Your task to perform on an android device: Go to wifi settings Image 0: 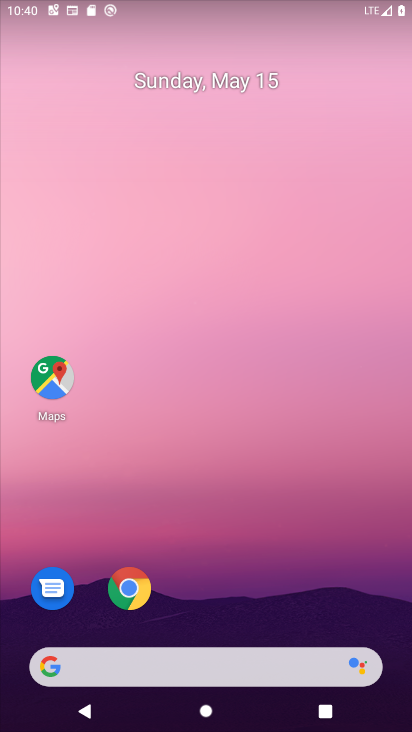
Step 0: drag from (301, 578) to (265, 45)
Your task to perform on an android device: Go to wifi settings Image 1: 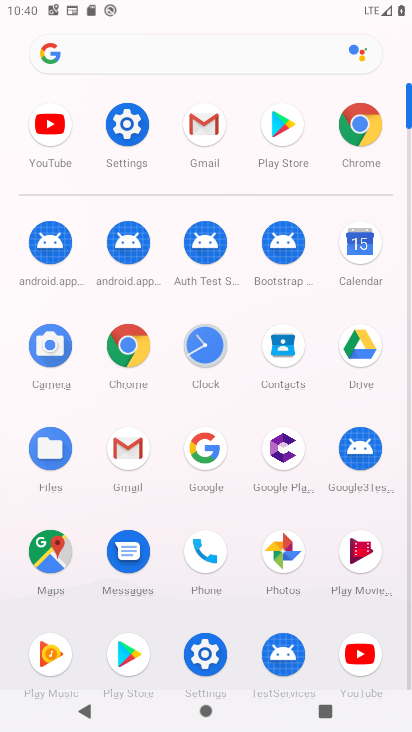
Step 1: click (119, 127)
Your task to perform on an android device: Go to wifi settings Image 2: 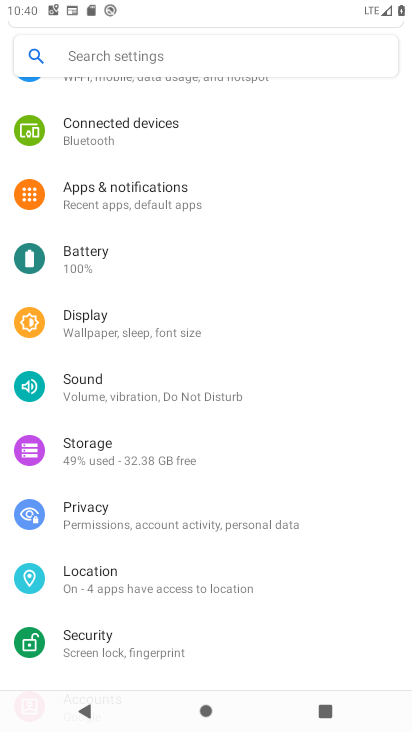
Step 2: drag from (218, 181) to (220, 588)
Your task to perform on an android device: Go to wifi settings Image 3: 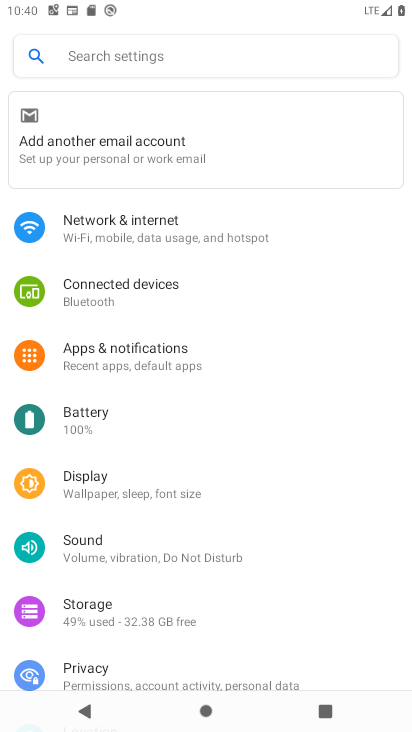
Step 3: click (178, 245)
Your task to perform on an android device: Go to wifi settings Image 4: 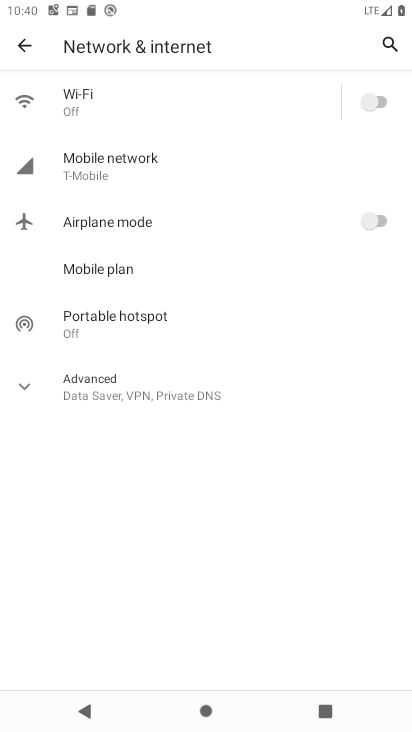
Step 4: click (166, 101)
Your task to perform on an android device: Go to wifi settings Image 5: 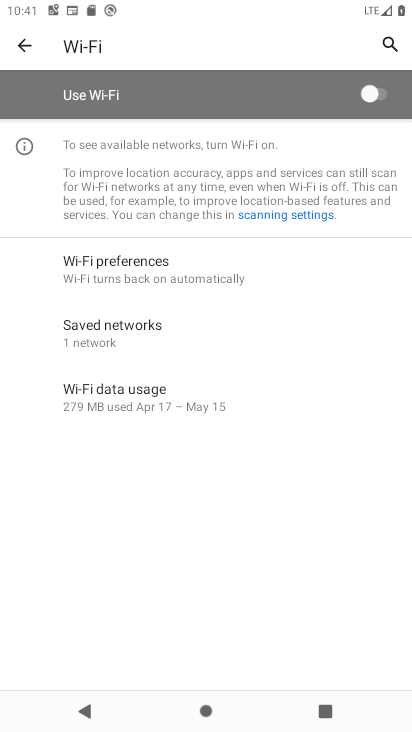
Step 5: task complete